Your task to perform on an android device: clear history in the chrome app Image 0: 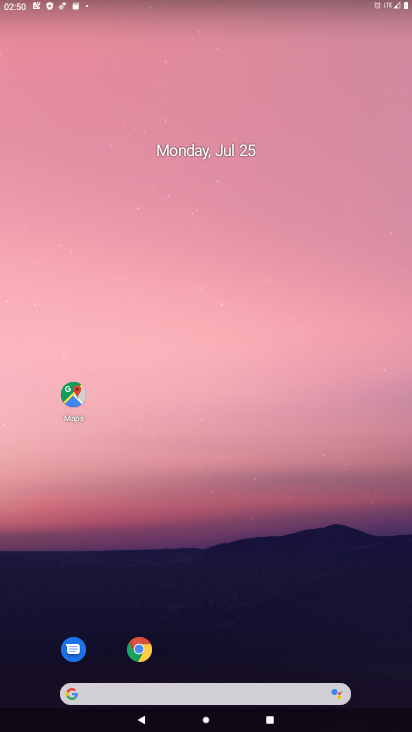
Step 0: click (139, 654)
Your task to perform on an android device: clear history in the chrome app Image 1: 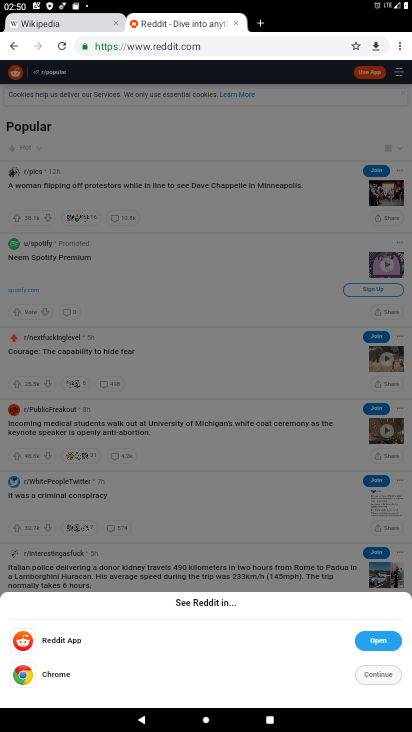
Step 1: click (401, 49)
Your task to perform on an android device: clear history in the chrome app Image 2: 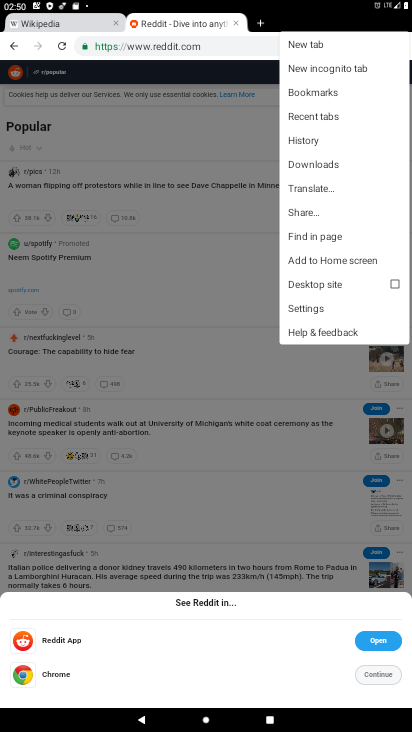
Step 2: click (305, 138)
Your task to perform on an android device: clear history in the chrome app Image 3: 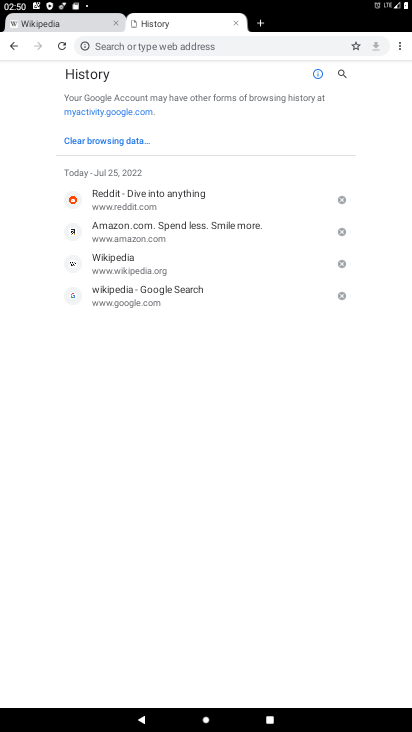
Step 3: click (85, 139)
Your task to perform on an android device: clear history in the chrome app Image 4: 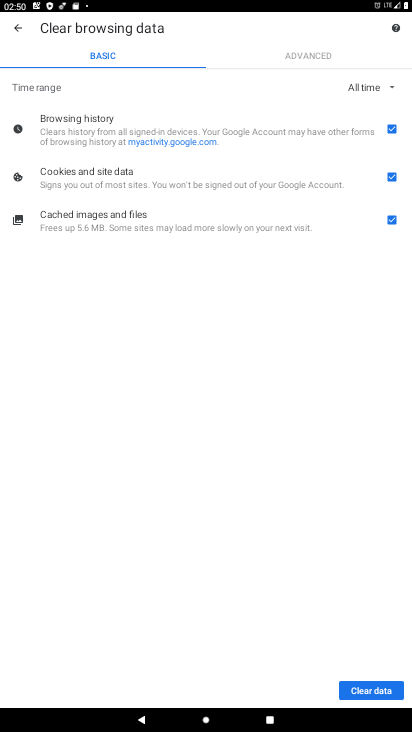
Step 4: click (392, 179)
Your task to perform on an android device: clear history in the chrome app Image 5: 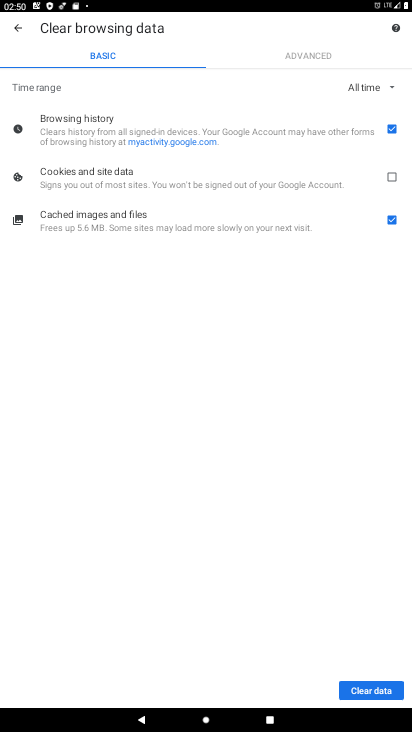
Step 5: click (390, 221)
Your task to perform on an android device: clear history in the chrome app Image 6: 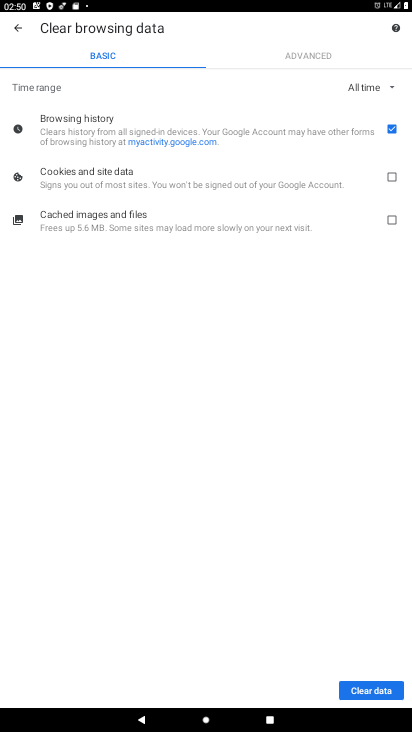
Step 6: click (369, 687)
Your task to perform on an android device: clear history in the chrome app Image 7: 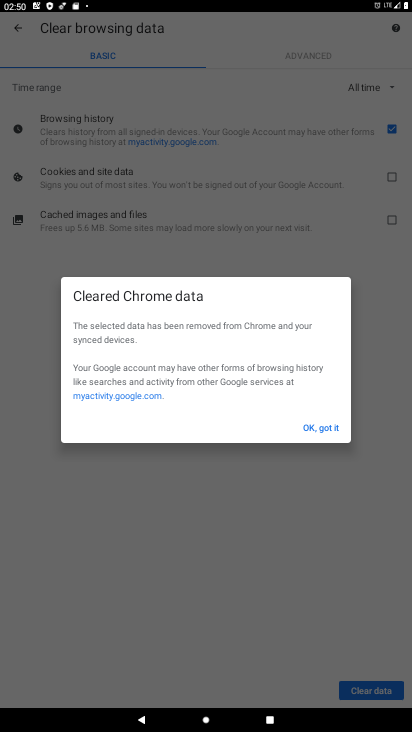
Step 7: click (322, 426)
Your task to perform on an android device: clear history in the chrome app Image 8: 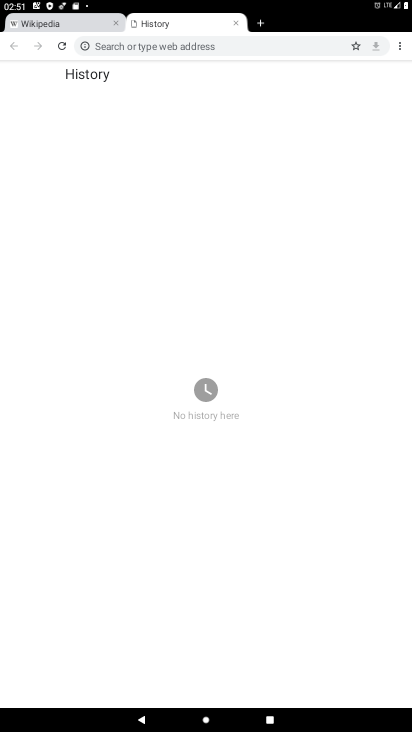
Step 8: task complete